Your task to perform on an android device: Open settings Image 0: 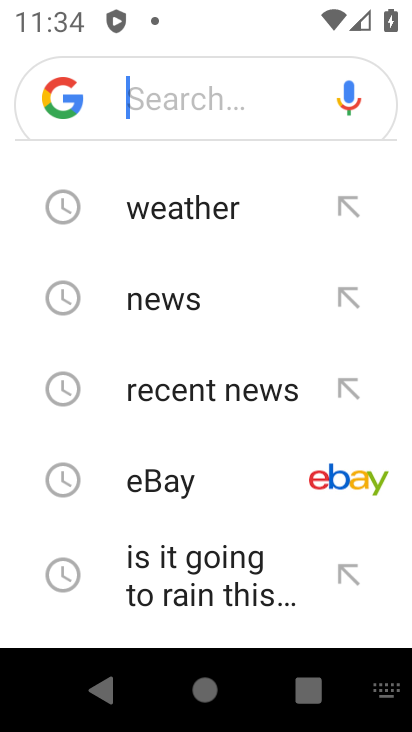
Step 0: press home button
Your task to perform on an android device: Open settings Image 1: 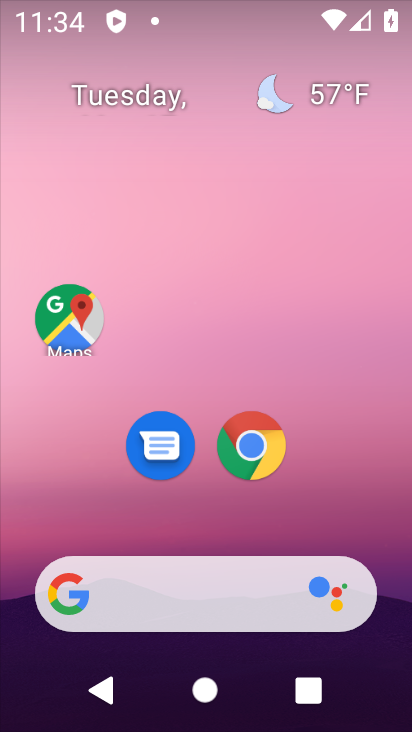
Step 1: drag from (374, 522) to (341, 148)
Your task to perform on an android device: Open settings Image 2: 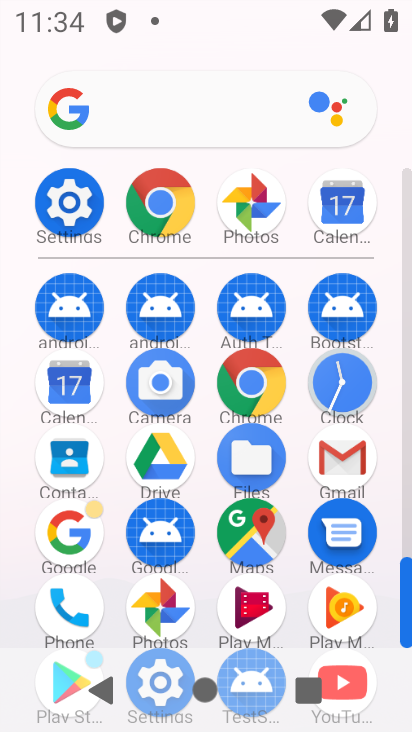
Step 2: click (71, 210)
Your task to perform on an android device: Open settings Image 3: 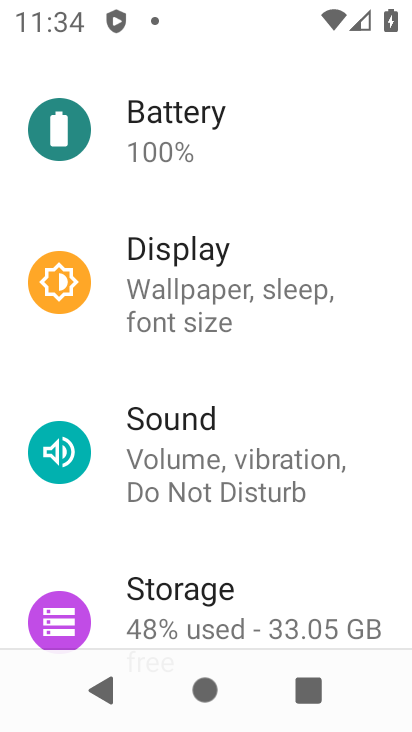
Step 3: task complete